Your task to perform on an android device: Open notification settings Image 0: 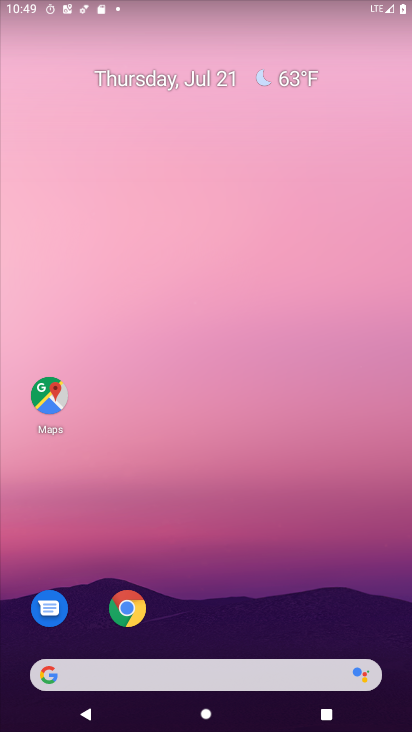
Step 0: drag from (249, 618) to (364, 35)
Your task to perform on an android device: Open notification settings Image 1: 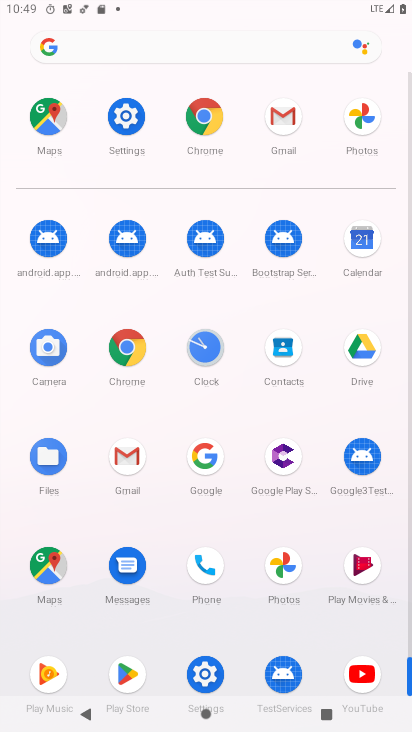
Step 1: click (127, 138)
Your task to perform on an android device: Open notification settings Image 2: 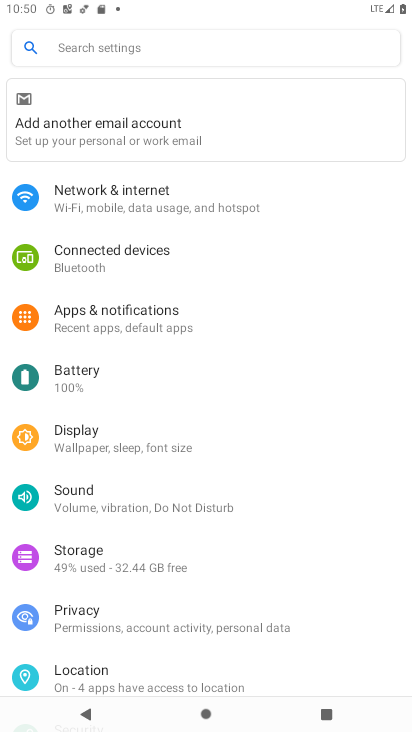
Step 2: click (148, 319)
Your task to perform on an android device: Open notification settings Image 3: 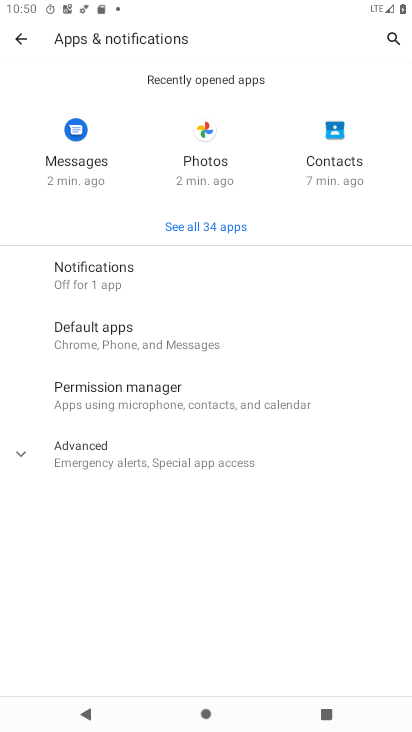
Step 3: click (175, 277)
Your task to perform on an android device: Open notification settings Image 4: 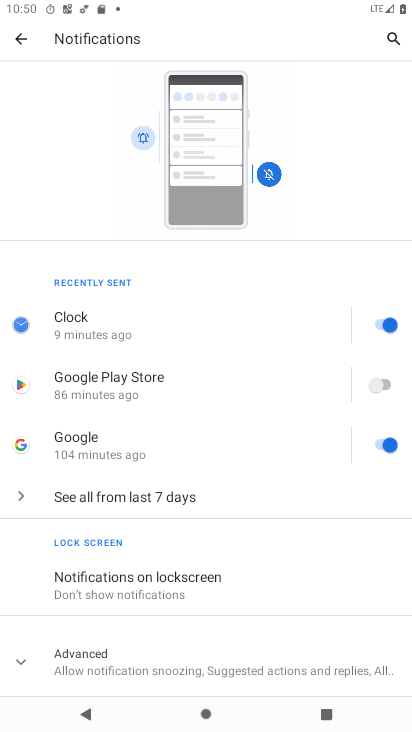
Step 4: drag from (138, 544) to (166, 230)
Your task to perform on an android device: Open notification settings Image 5: 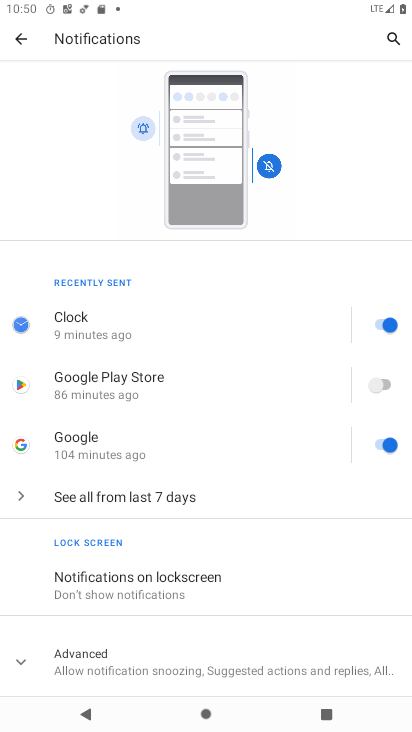
Step 5: drag from (175, 638) to (211, 385)
Your task to perform on an android device: Open notification settings Image 6: 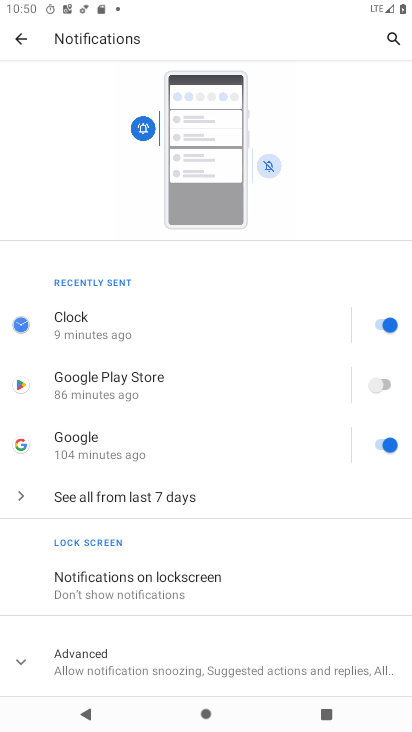
Step 6: drag from (159, 607) to (163, 366)
Your task to perform on an android device: Open notification settings Image 7: 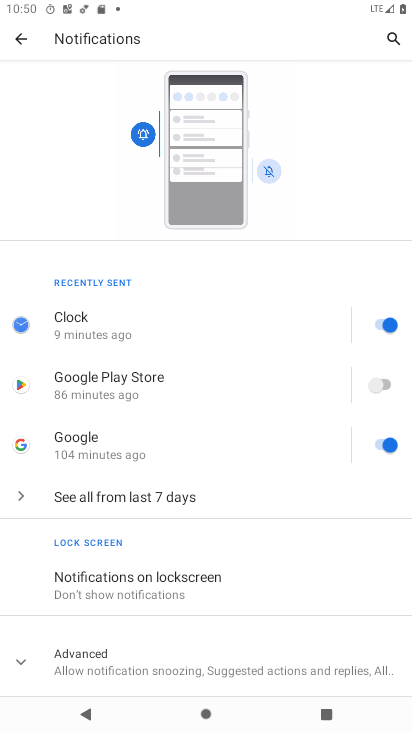
Step 7: drag from (173, 591) to (292, 107)
Your task to perform on an android device: Open notification settings Image 8: 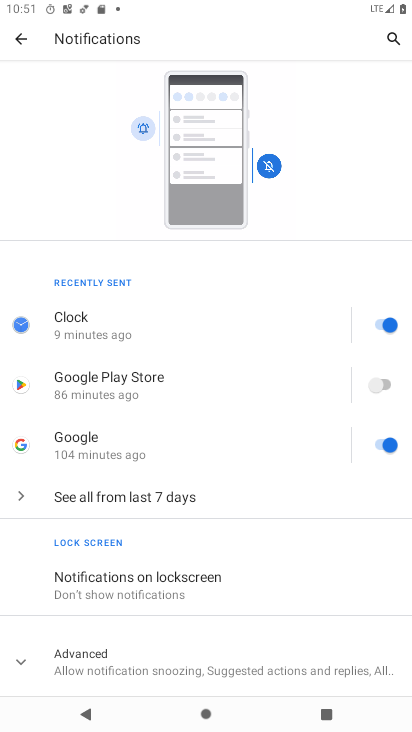
Step 8: drag from (195, 582) to (277, 225)
Your task to perform on an android device: Open notification settings Image 9: 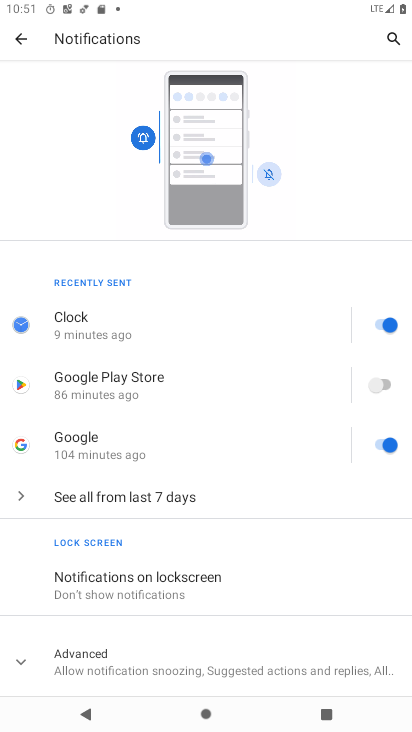
Step 9: click (177, 658)
Your task to perform on an android device: Open notification settings Image 10: 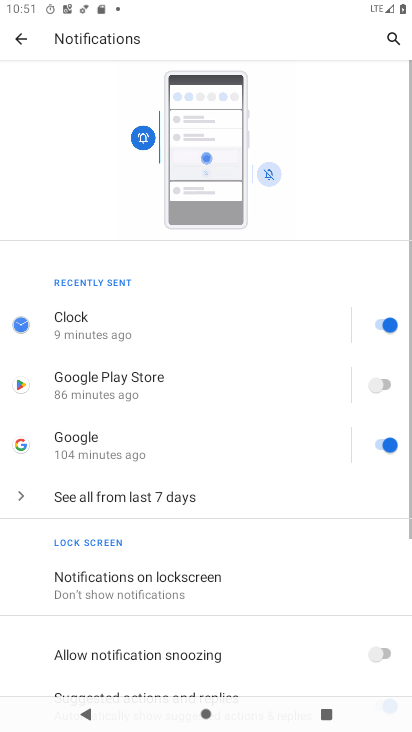
Step 10: task complete